Your task to perform on an android device: Open Wikipedia Image 0: 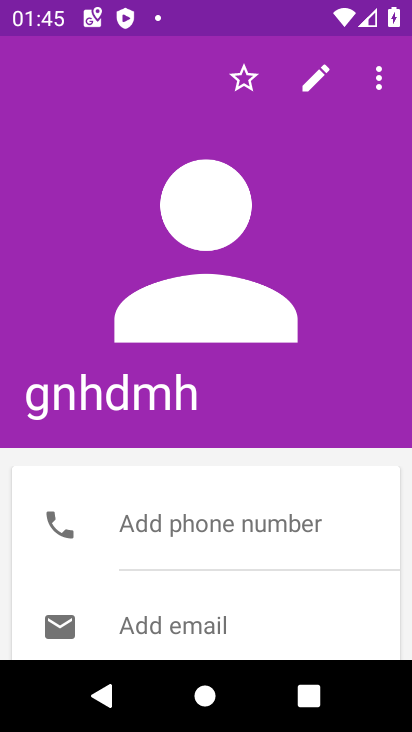
Step 0: press home button
Your task to perform on an android device: Open Wikipedia Image 1: 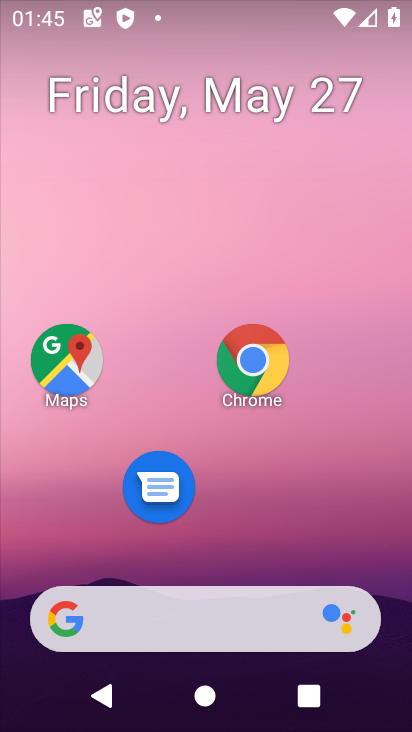
Step 1: click (261, 365)
Your task to perform on an android device: Open Wikipedia Image 2: 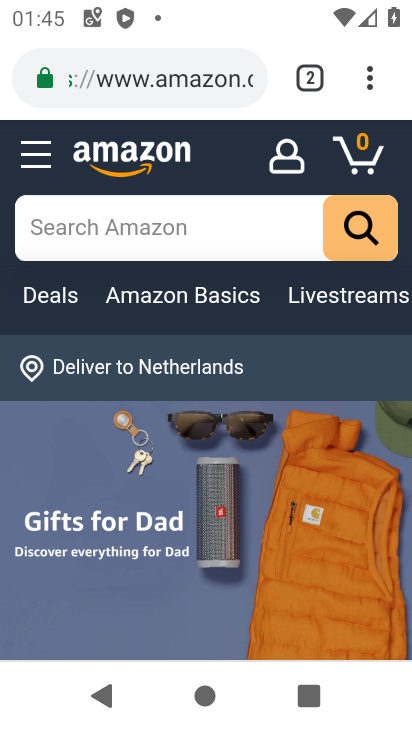
Step 2: press back button
Your task to perform on an android device: Open Wikipedia Image 3: 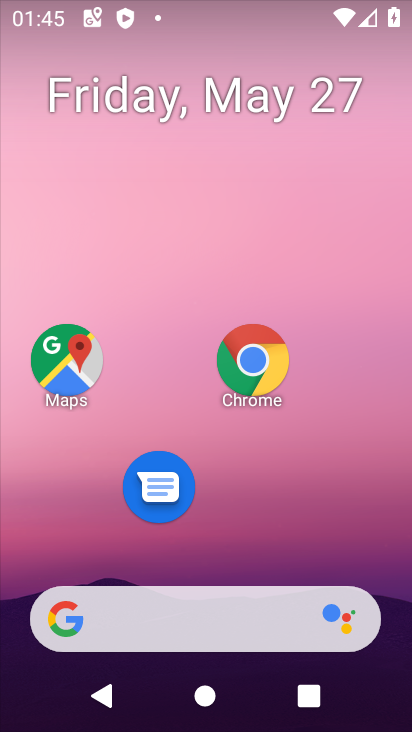
Step 3: click (248, 361)
Your task to perform on an android device: Open Wikipedia Image 4: 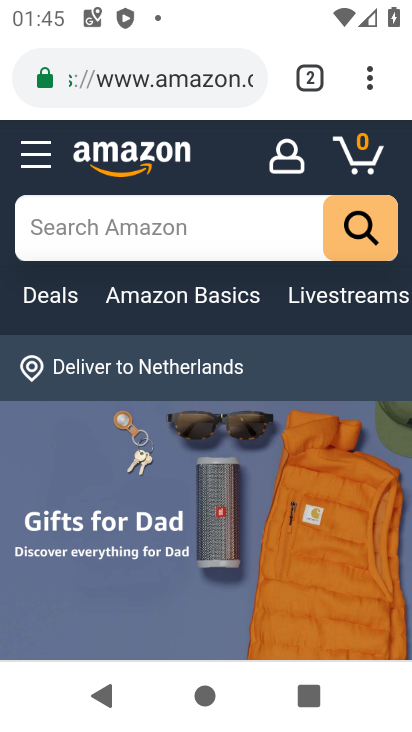
Step 4: task complete